Your task to perform on an android device: Go to Wikipedia Image 0: 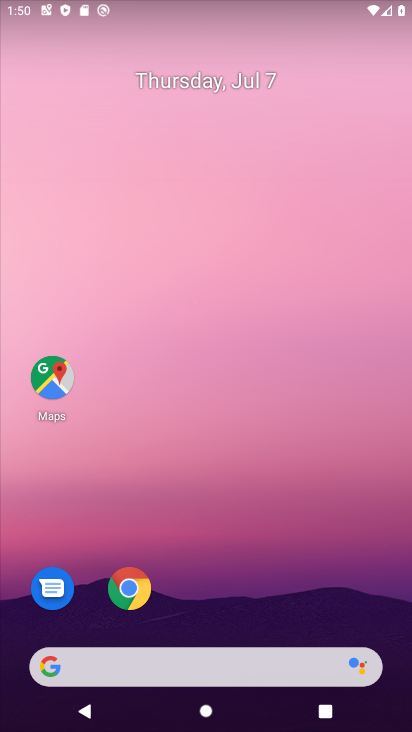
Step 0: click (140, 593)
Your task to perform on an android device: Go to Wikipedia Image 1: 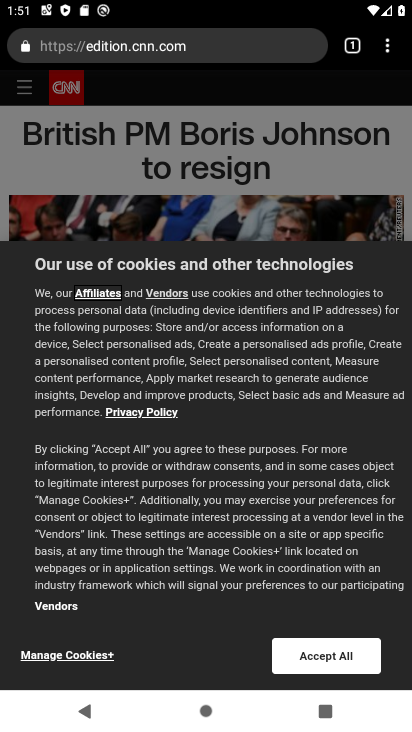
Step 1: click (342, 42)
Your task to perform on an android device: Go to Wikipedia Image 2: 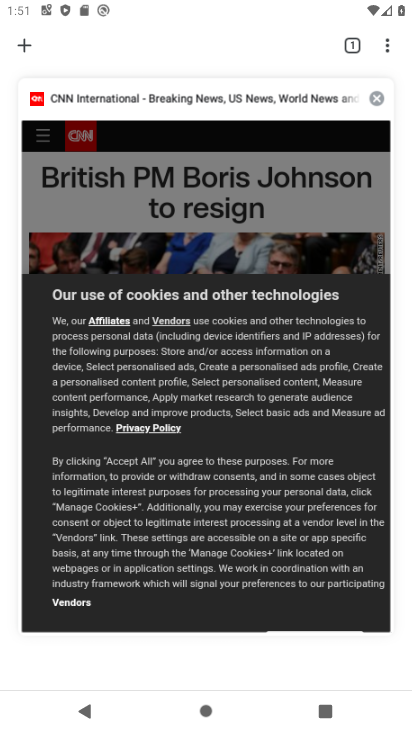
Step 2: click (29, 42)
Your task to perform on an android device: Go to Wikipedia Image 3: 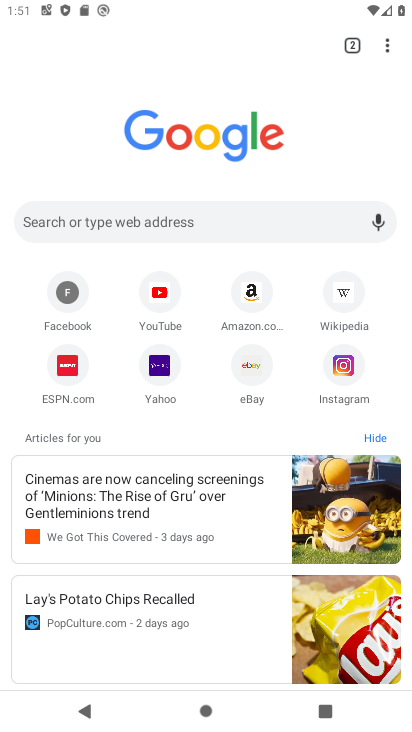
Step 3: click (347, 288)
Your task to perform on an android device: Go to Wikipedia Image 4: 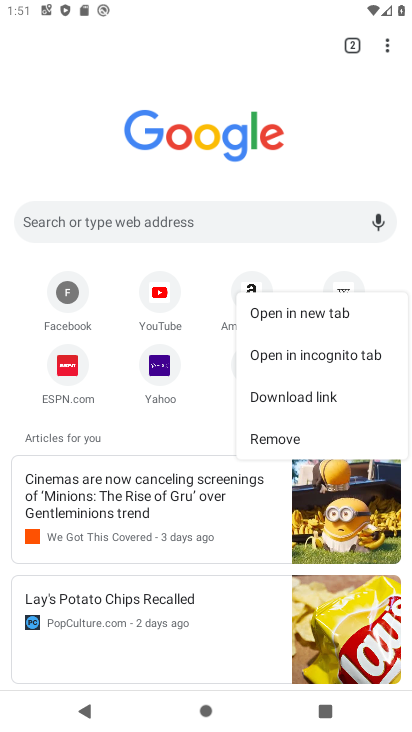
Step 4: click (345, 275)
Your task to perform on an android device: Go to Wikipedia Image 5: 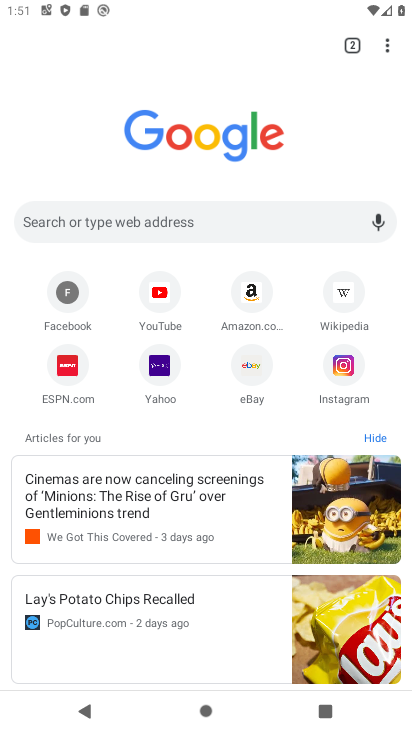
Step 5: click (348, 285)
Your task to perform on an android device: Go to Wikipedia Image 6: 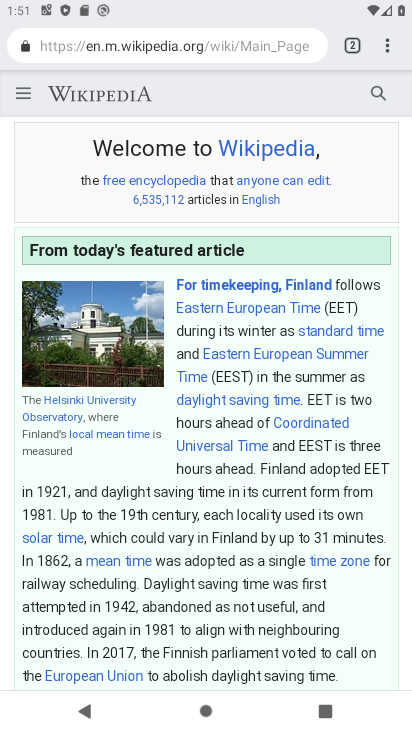
Step 6: task complete